Your task to perform on an android device: Check the news Image 0: 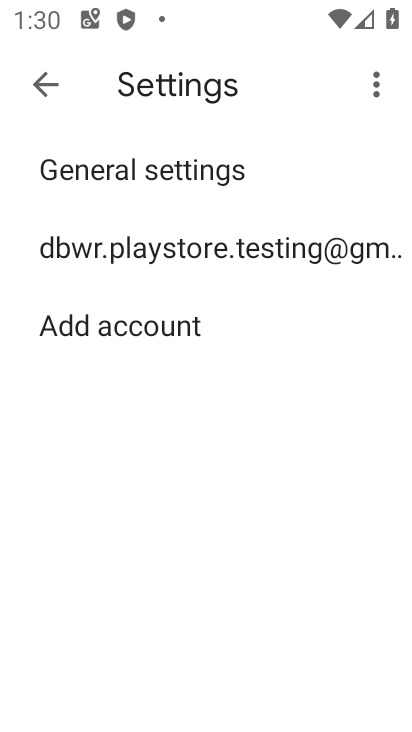
Step 0: press home button
Your task to perform on an android device: Check the news Image 1: 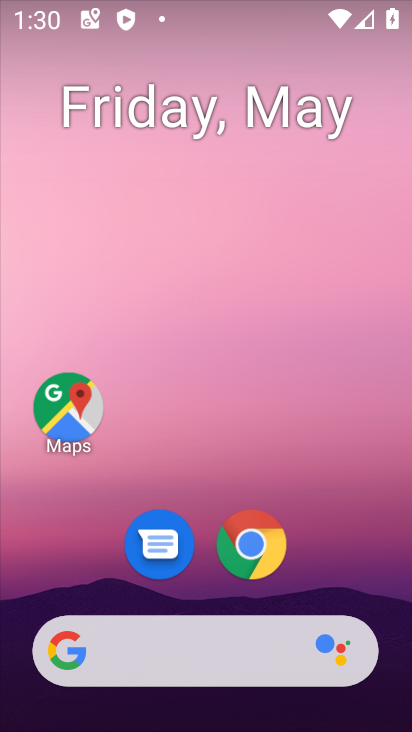
Step 1: drag from (209, 593) to (198, 260)
Your task to perform on an android device: Check the news Image 2: 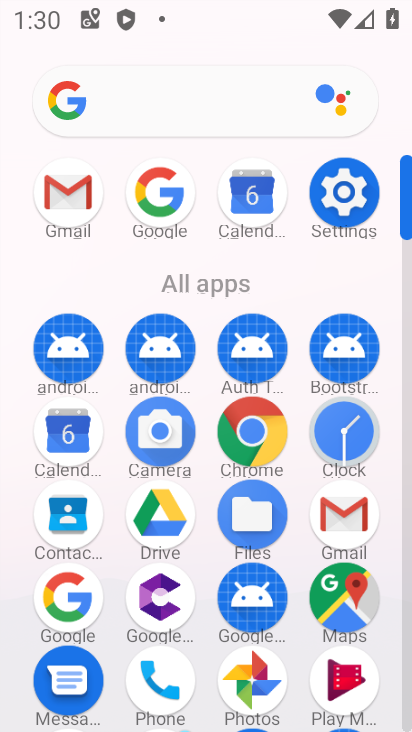
Step 2: click (172, 218)
Your task to perform on an android device: Check the news Image 3: 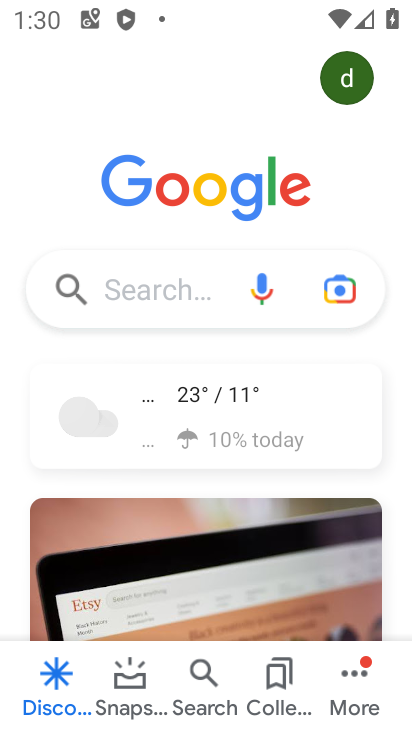
Step 3: task complete